Your task to perform on an android device: Open Amazon Image 0: 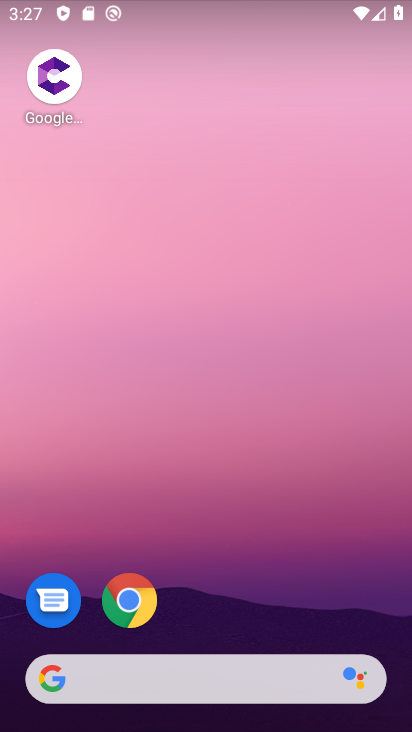
Step 0: click (117, 608)
Your task to perform on an android device: Open Amazon Image 1: 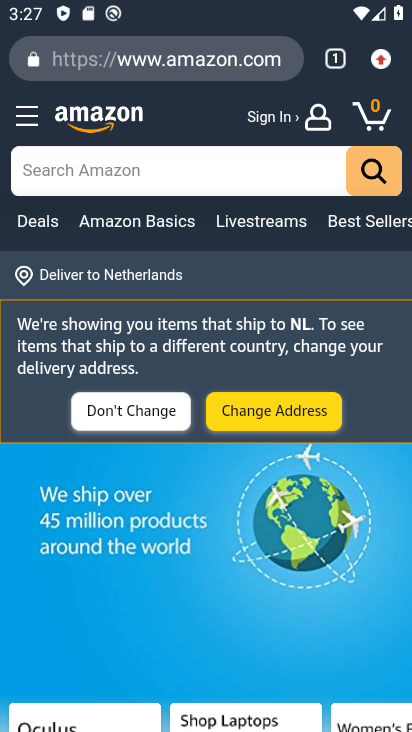
Step 1: task complete